Your task to perform on an android device: What's the weather going to be tomorrow? Image 0: 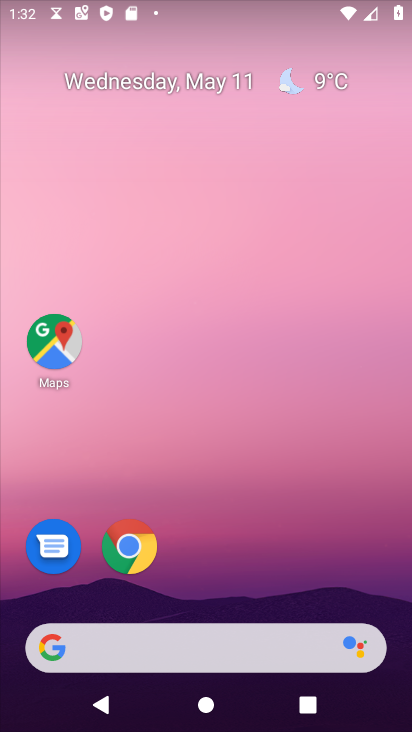
Step 0: drag from (149, 629) to (137, 110)
Your task to perform on an android device: What's the weather going to be tomorrow? Image 1: 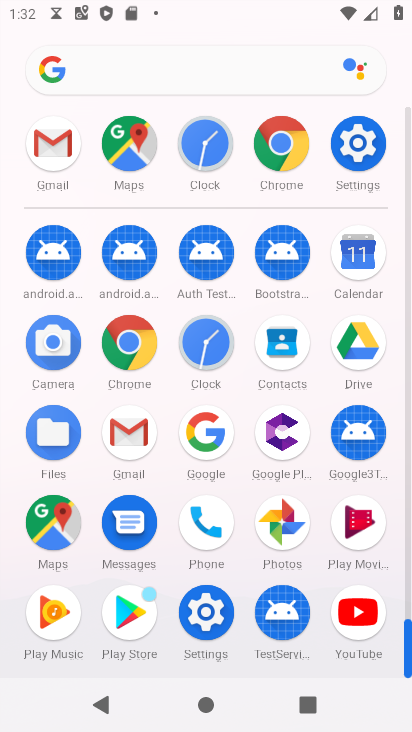
Step 1: click (363, 262)
Your task to perform on an android device: What's the weather going to be tomorrow? Image 2: 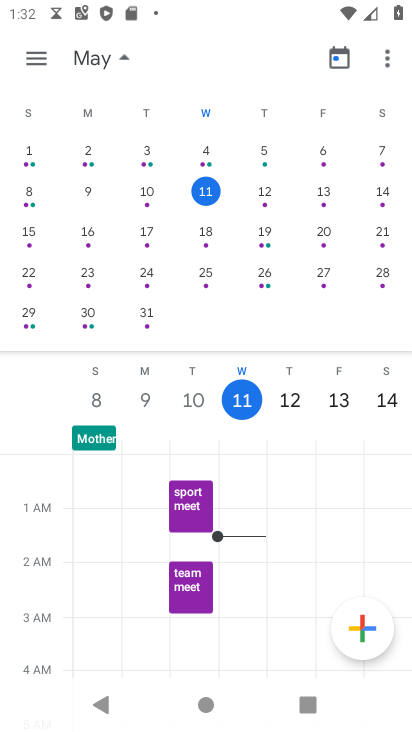
Step 2: press back button
Your task to perform on an android device: What's the weather going to be tomorrow? Image 3: 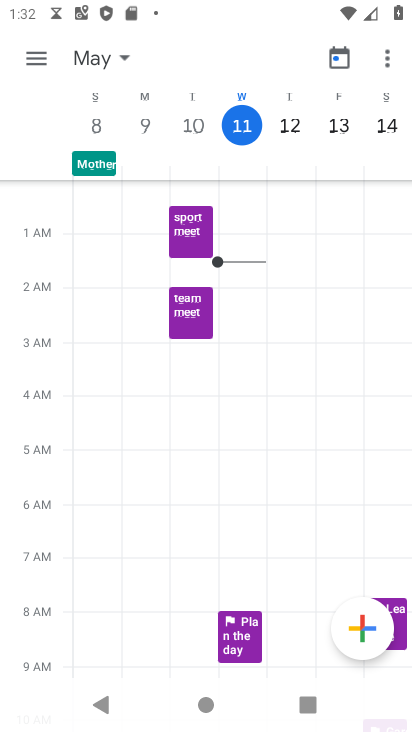
Step 3: press home button
Your task to perform on an android device: What's the weather going to be tomorrow? Image 4: 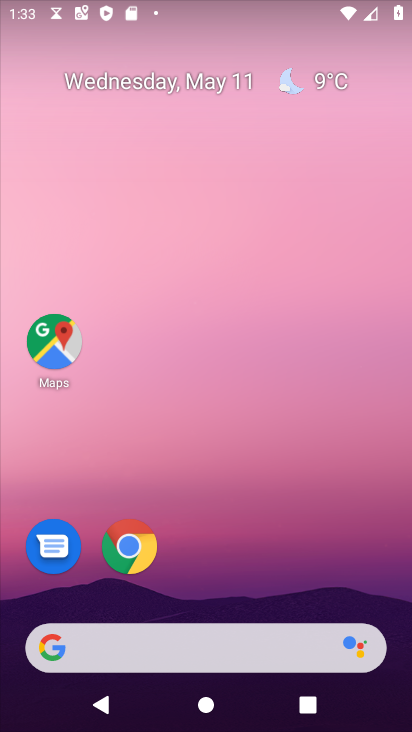
Step 4: drag from (249, 633) to (287, 84)
Your task to perform on an android device: What's the weather going to be tomorrow? Image 5: 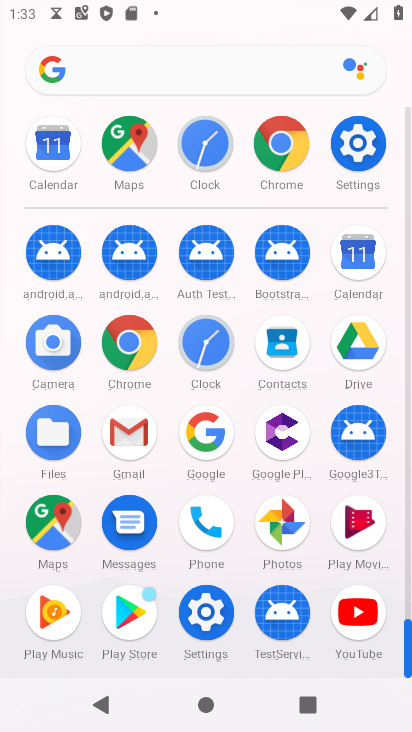
Step 5: click (119, 353)
Your task to perform on an android device: What's the weather going to be tomorrow? Image 6: 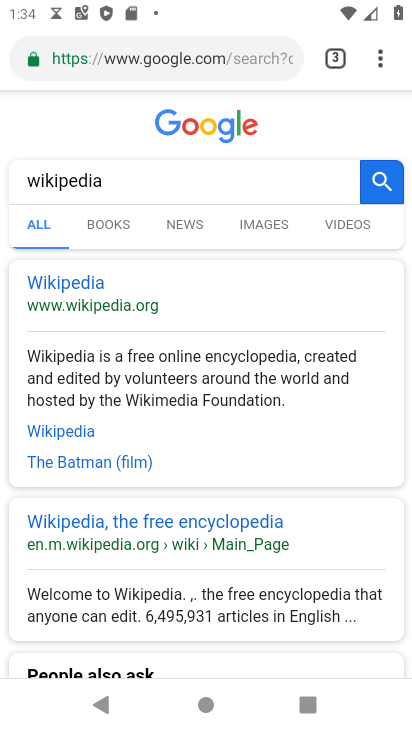
Step 6: click (258, 63)
Your task to perform on an android device: What's the weather going to be tomorrow? Image 7: 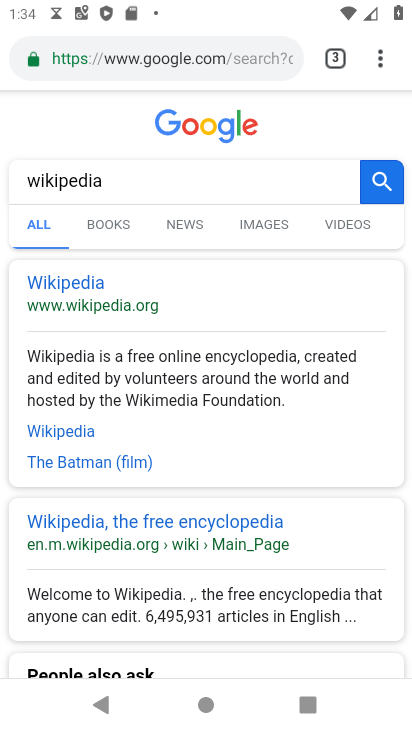
Step 7: click (257, 63)
Your task to perform on an android device: What's the weather going to be tomorrow? Image 8: 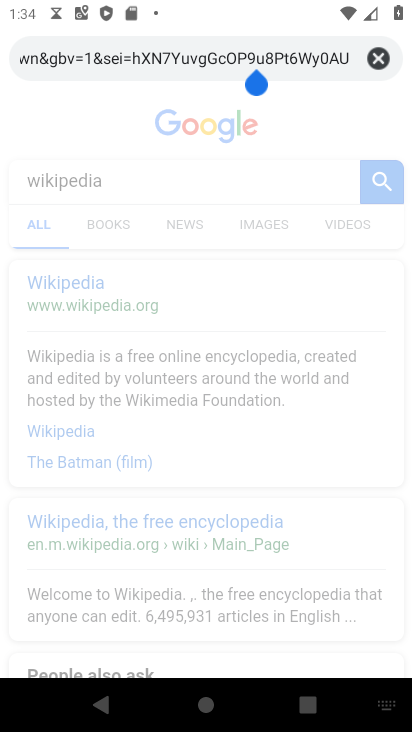
Step 8: click (377, 67)
Your task to perform on an android device: What's the weather going to be tomorrow? Image 9: 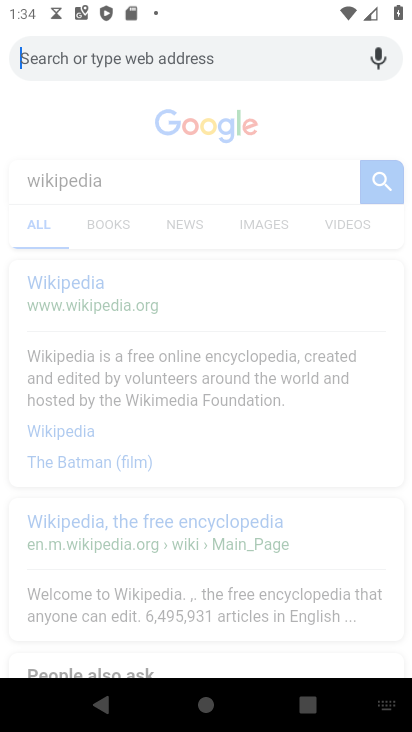
Step 9: type "weather going to be tomorrow"
Your task to perform on an android device: What's the weather going to be tomorrow? Image 10: 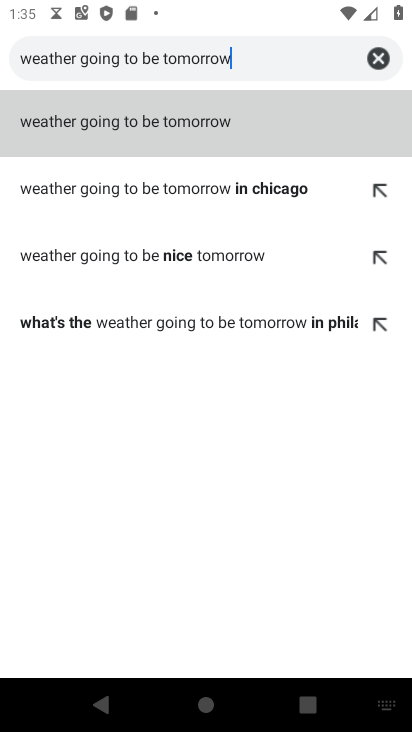
Step 10: click (212, 134)
Your task to perform on an android device: What's the weather going to be tomorrow? Image 11: 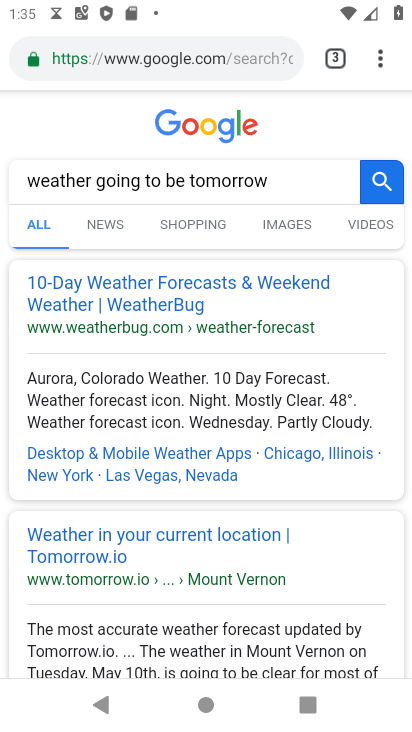
Step 11: task complete